Your task to perform on an android device: see creations saved in the google photos Image 0: 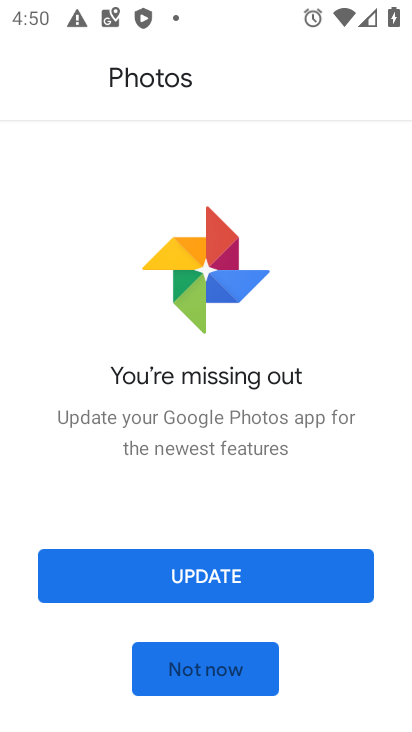
Step 0: press home button
Your task to perform on an android device: see creations saved in the google photos Image 1: 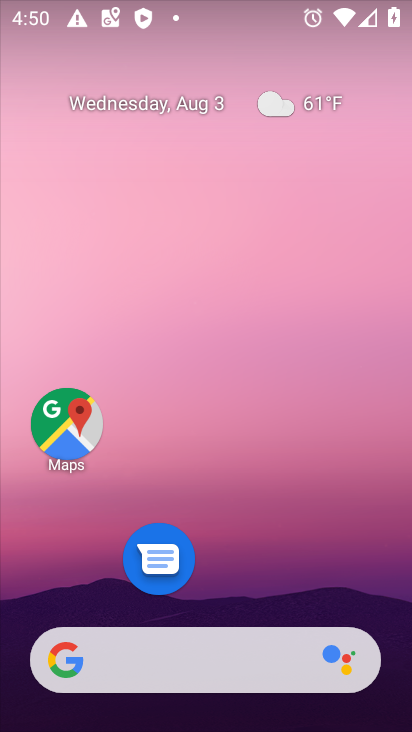
Step 1: drag from (202, 646) to (213, 211)
Your task to perform on an android device: see creations saved in the google photos Image 2: 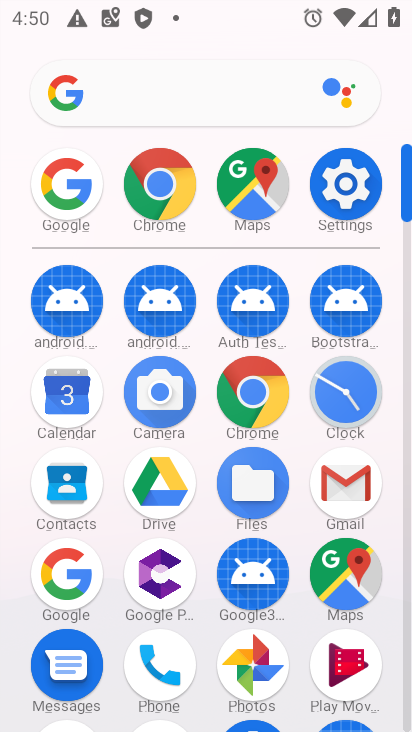
Step 2: click (252, 666)
Your task to perform on an android device: see creations saved in the google photos Image 3: 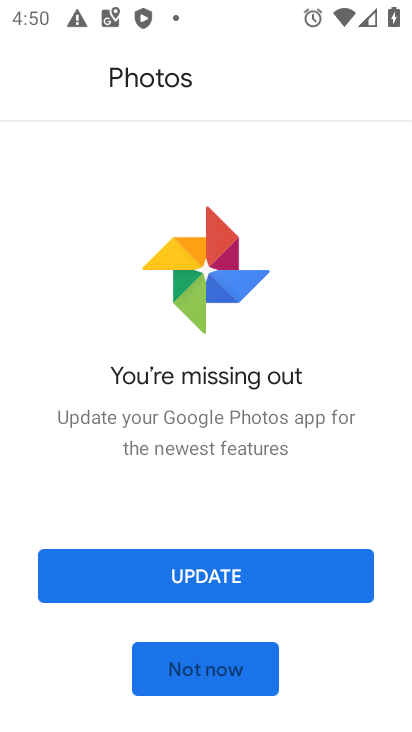
Step 3: click (227, 676)
Your task to perform on an android device: see creations saved in the google photos Image 4: 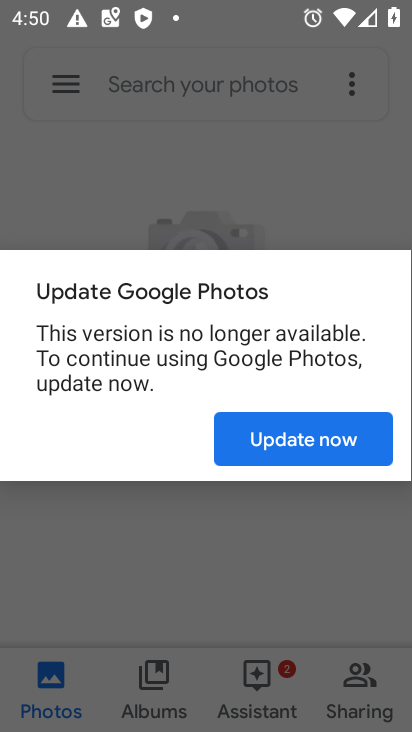
Step 4: click (287, 441)
Your task to perform on an android device: see creations saved in the google photos Image 5: 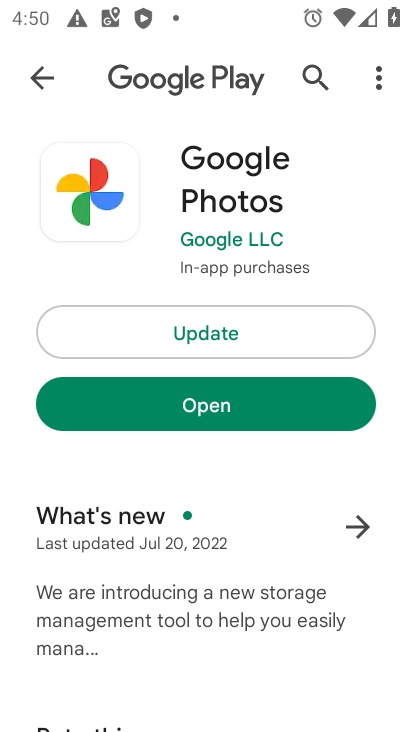
Step 5: click (182, 338)
Your task to perform on an android device: see creations saved in the google photos Image 6: 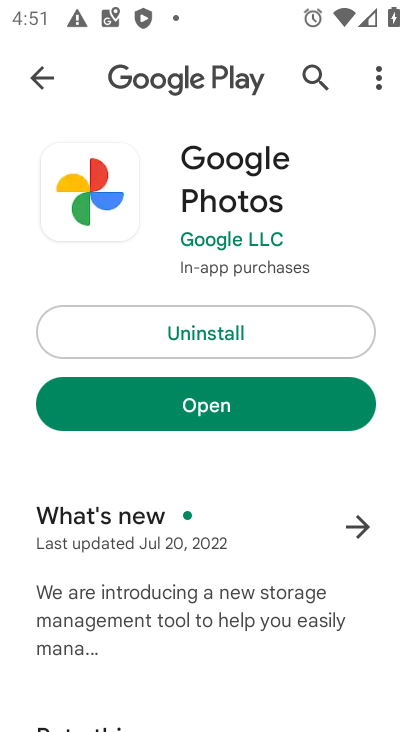
Step 6: click (229, 416)
Your task to perform on an android device: see creations saved in the google photos Image 7: 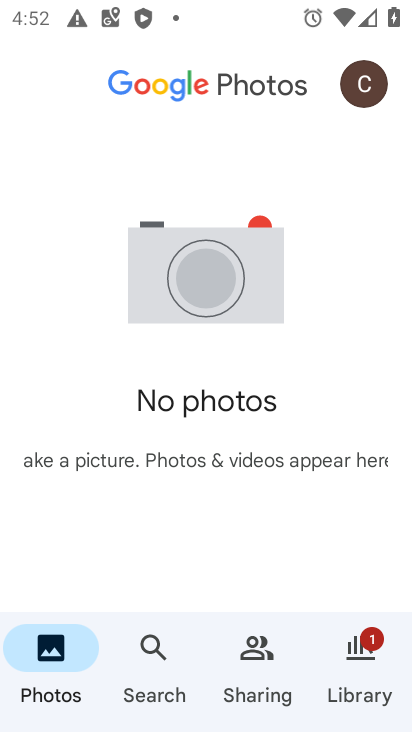
Step 7: task complete